Your task to perform on an android device: Go to wifi settings Image 0: 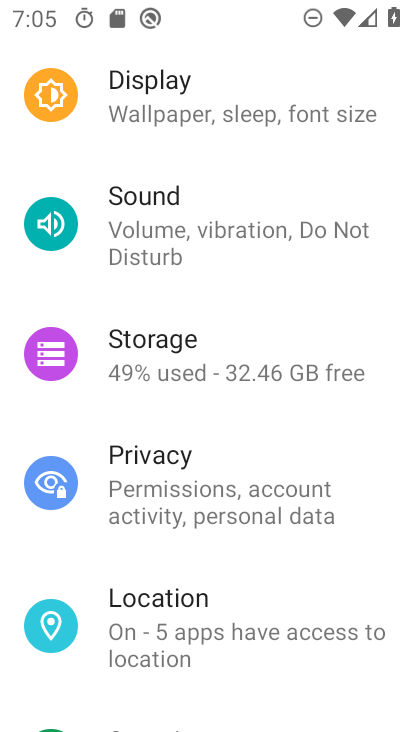
Step 0: press home button
Your task to perform on an android device: Go to wifi settings Image 1: 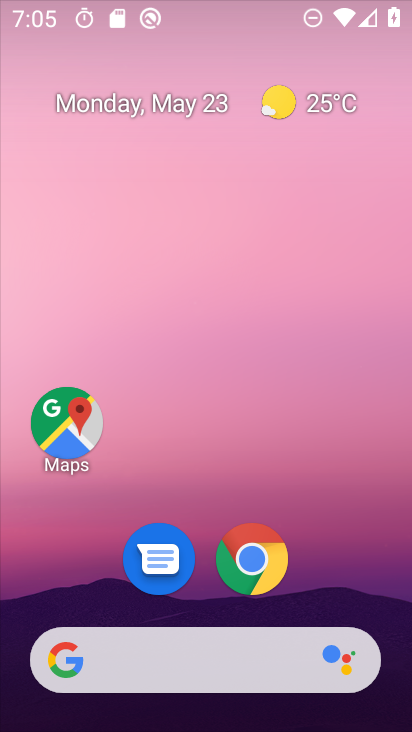
Step 1: drag from (383, 638) to (233, 103)
Your task to perform on an android device: Go to wifi settings Image 2: 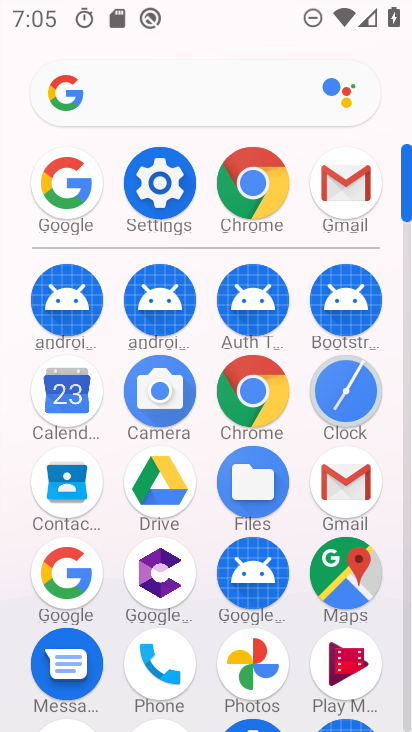
Step 2: click (165, 201)
Your task to perform on an android device: Go to wifi settings Image 3: 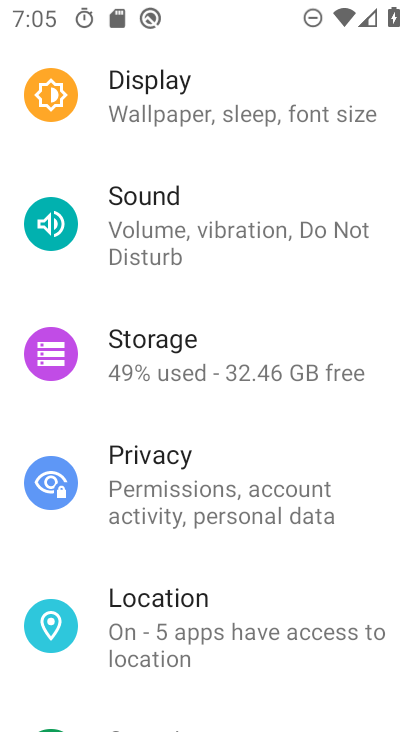
Step 3: drag from (153, 102) to (181, 730)
Your task to perform on an android device: Go to wifi settings Image 4: 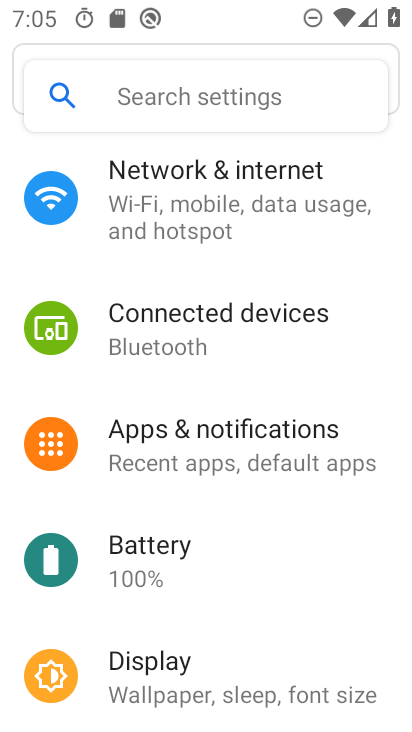
Step 4: click (149, 234)
Your task to perform on an android device: Go to wifi settings Image 5: 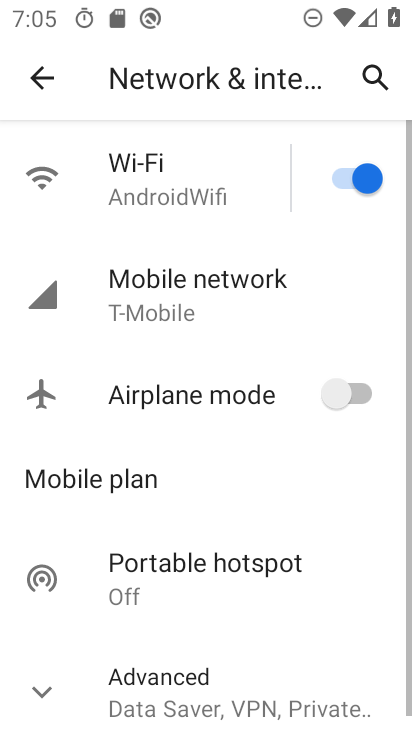
Step 5: click (137, 192)
Your task to perform on an android device: Go to wifi settings Image 6: 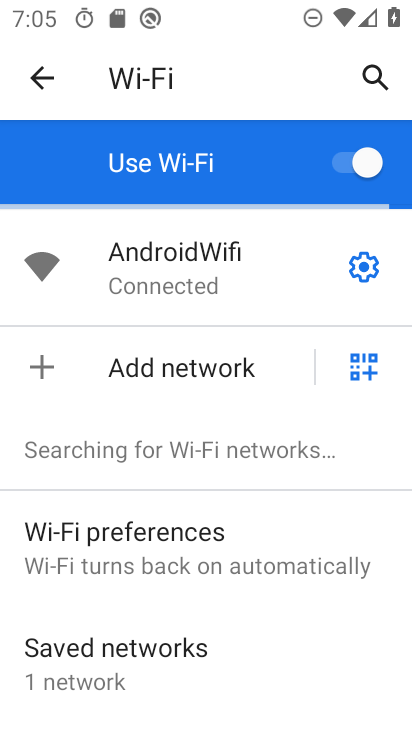
Step 6: task complete